Your task to perform on an android device: Go to internet settings Image 0: 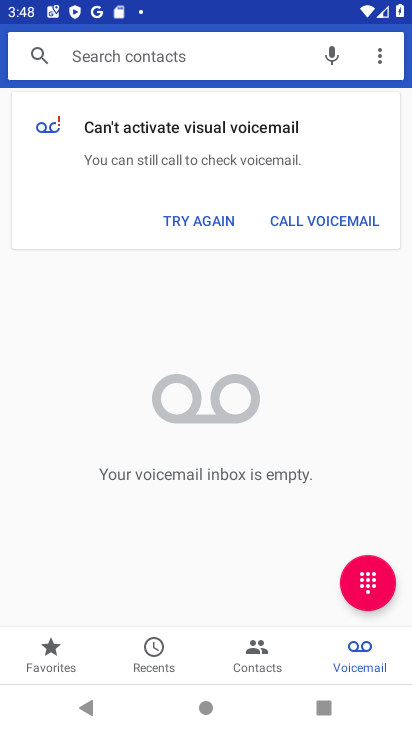
Step 0: press back button
Your task to perform on an android device: Go to internet settings Image 1: 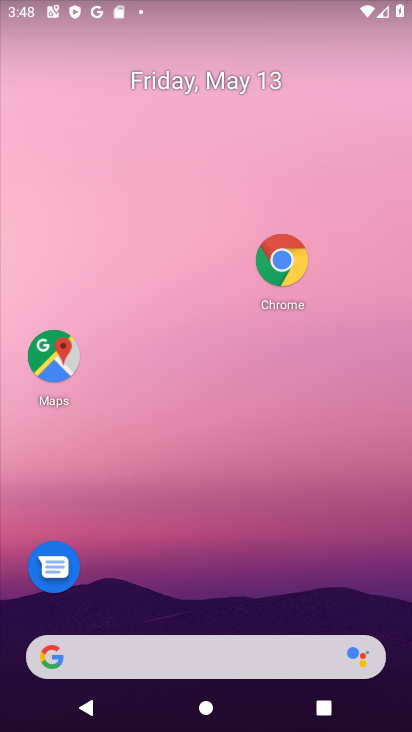
Step 1: drag from (247, 617) to (199, 38)
Your task to perform on an android device: Go to internet settings Image 2: 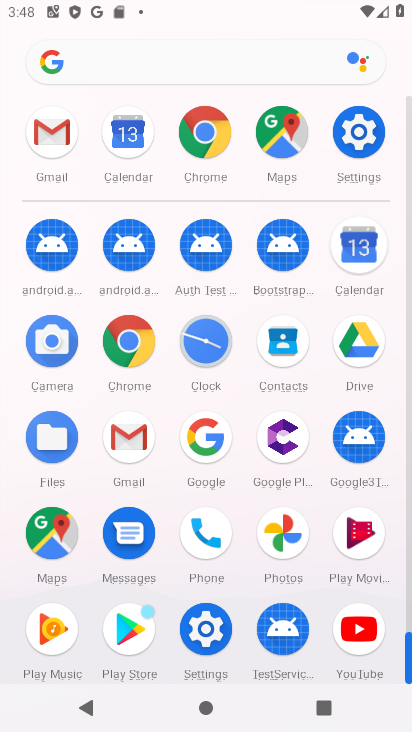
Step 2: click (343, 117)
Your task to perform on an android device: Go to internet settings Image 3: 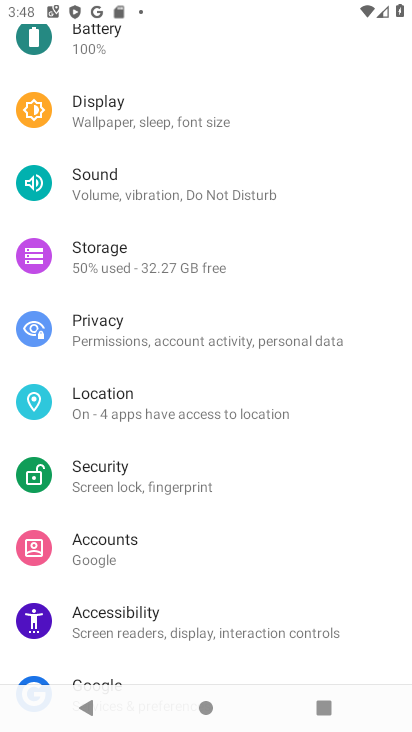
Step 3: drag from (115, 154) to (119, 552)
Your task to perform on an android device: Go to internet settings Image 4: 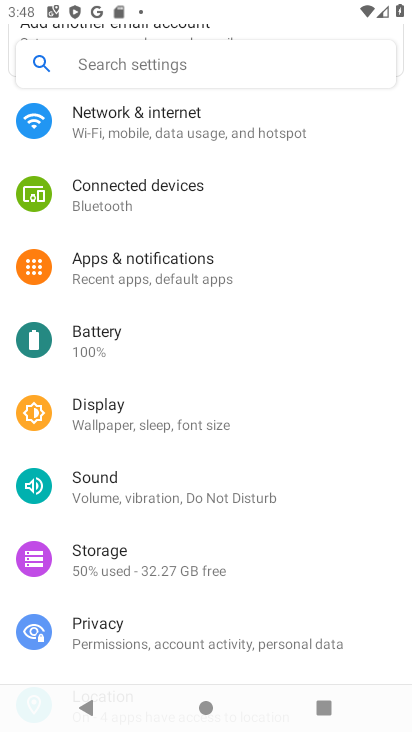
Step 4: click (155, 117)
Your task to perform on an android device: Go to internet settings Image 5: 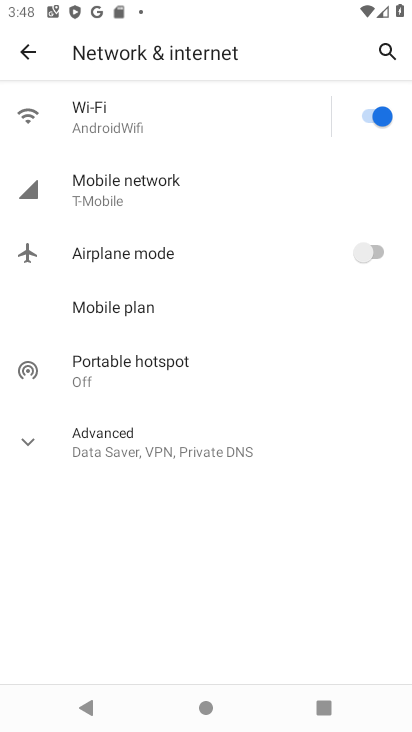
Step 5: task complete